Your task to perform on an android device: Is it going to rain this weekend? Image 0: 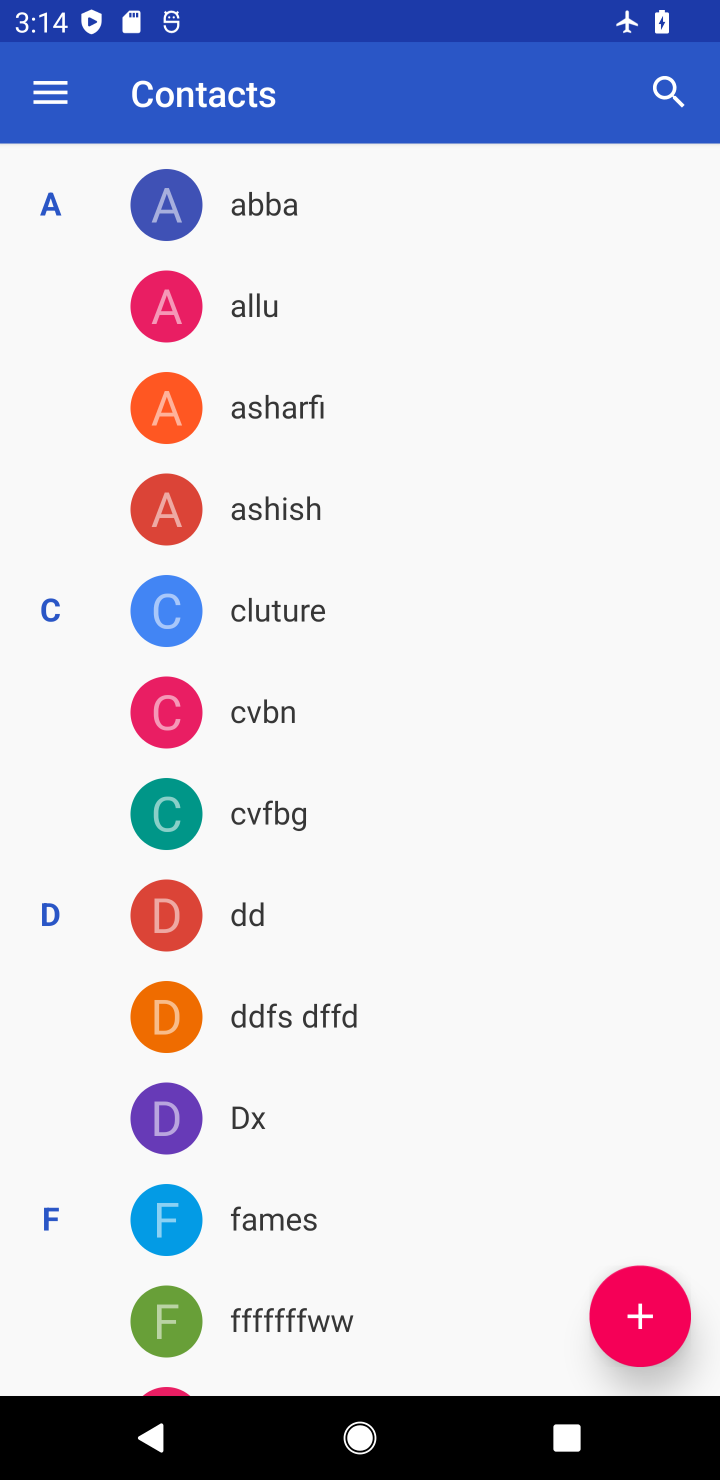
Step 0: press home button
Your task to perform on an android device: Is it going to rain this weekend? Image 1: 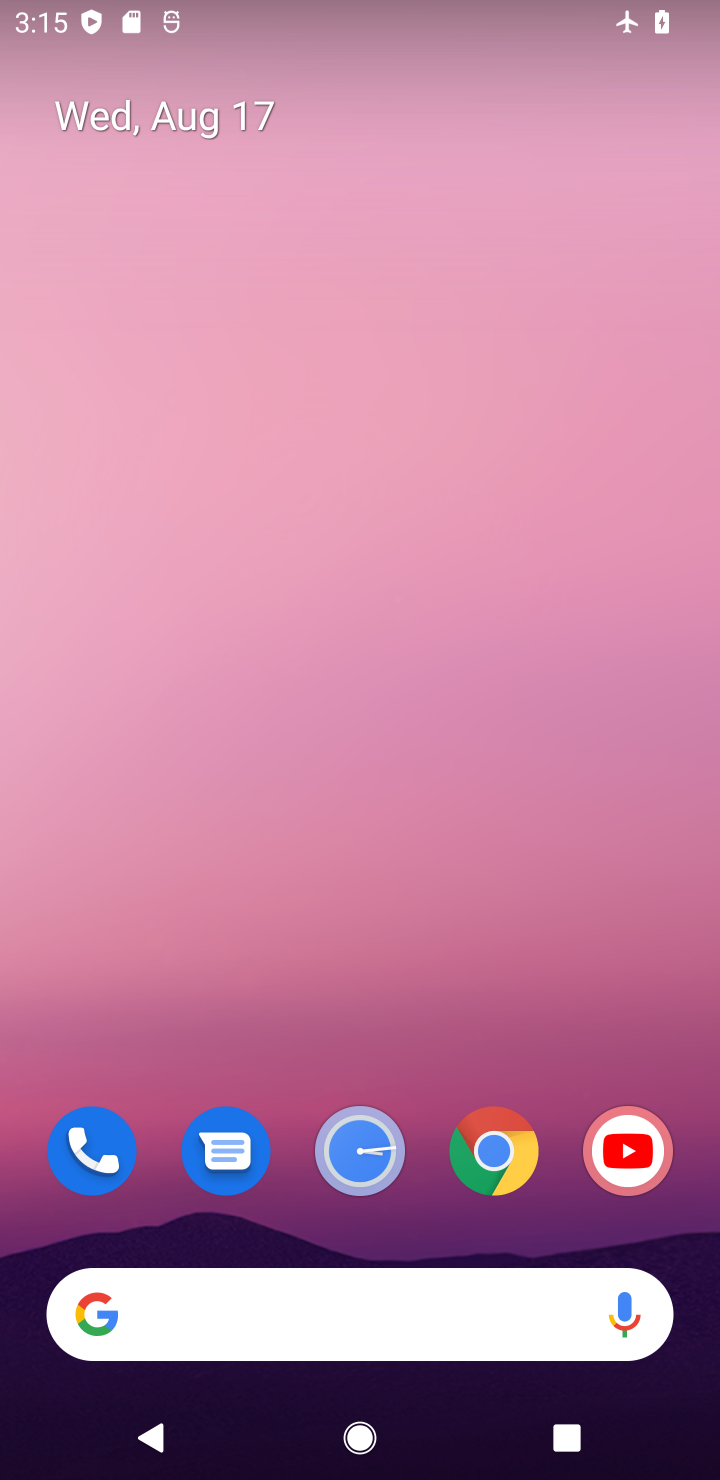
Step 1: click (504, 1202)
Your task to perform on an android device: Is it going to rain this weekend? Image 2: 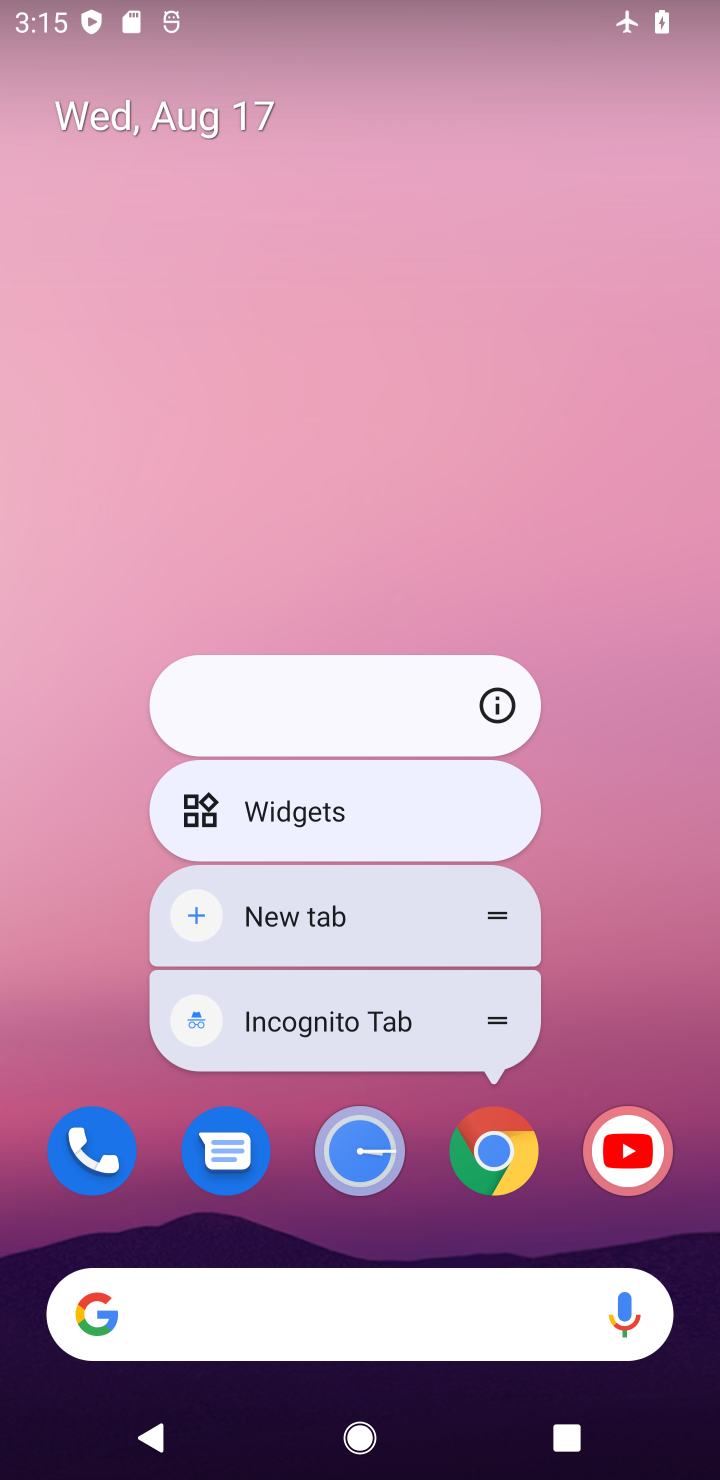
Step 2: click (500, 1162)
Your task to perform on an android device: Is it going to rain this weekend? Image 3: 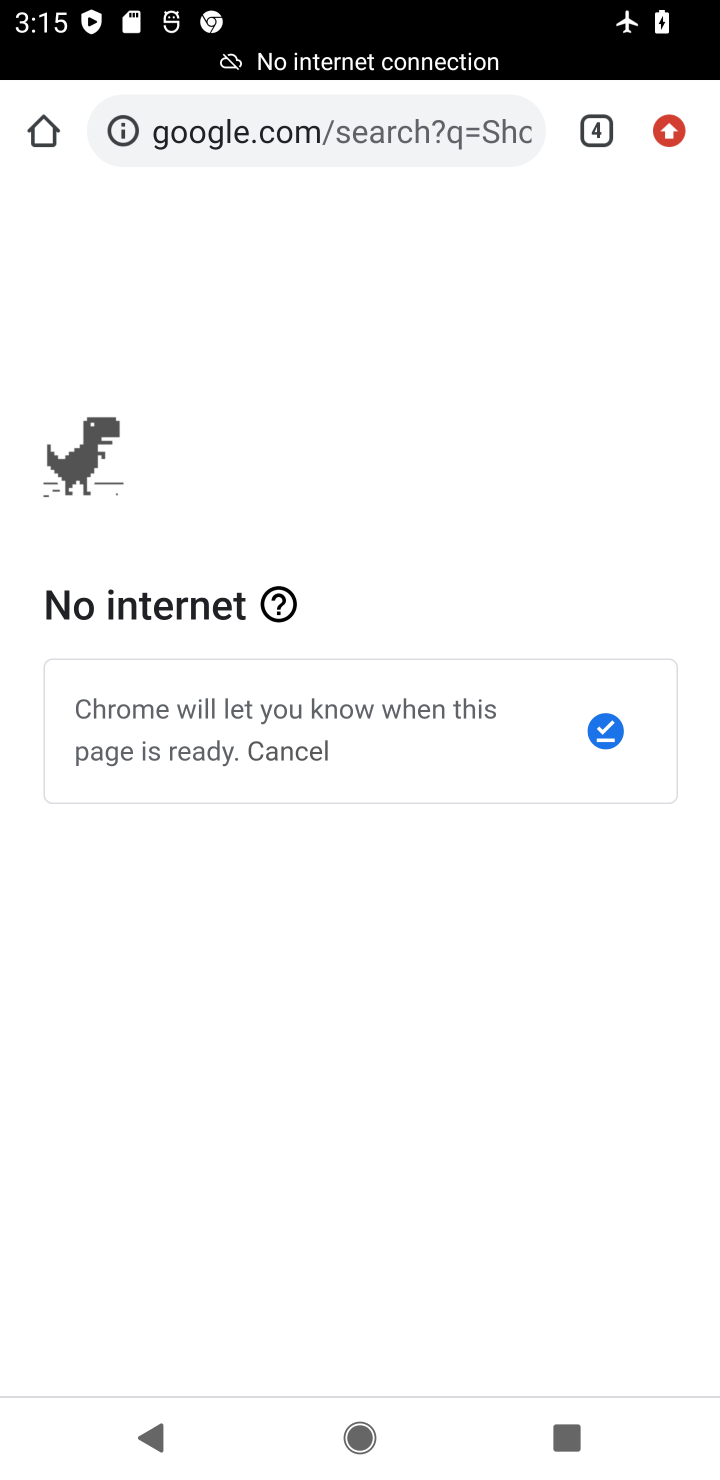
Step 3: click (663, 142)
Your task to perform on an android device: Is it going to rain this weekend? Image 4: 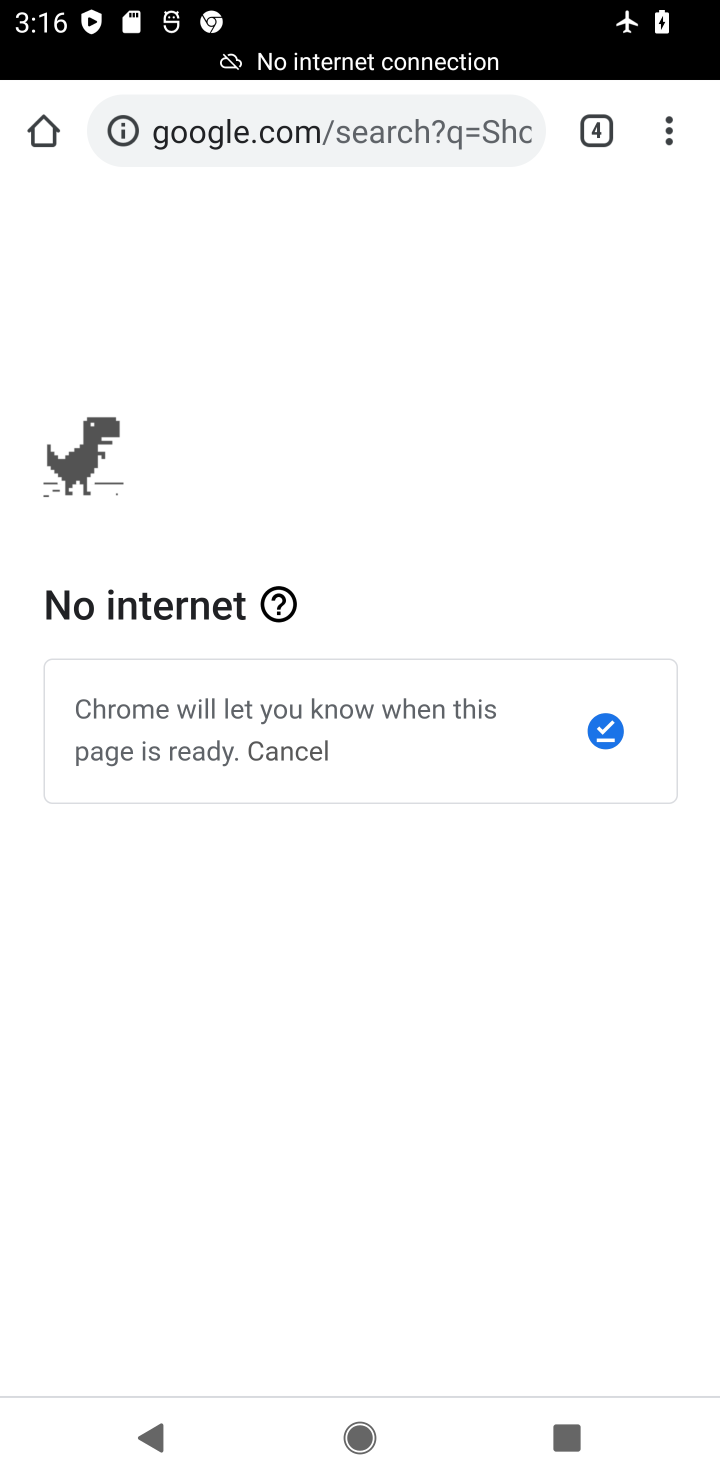
Step 4: click (618, 128)
Your task to perform on an android device: Is it going to rain this weekend? Image 5: 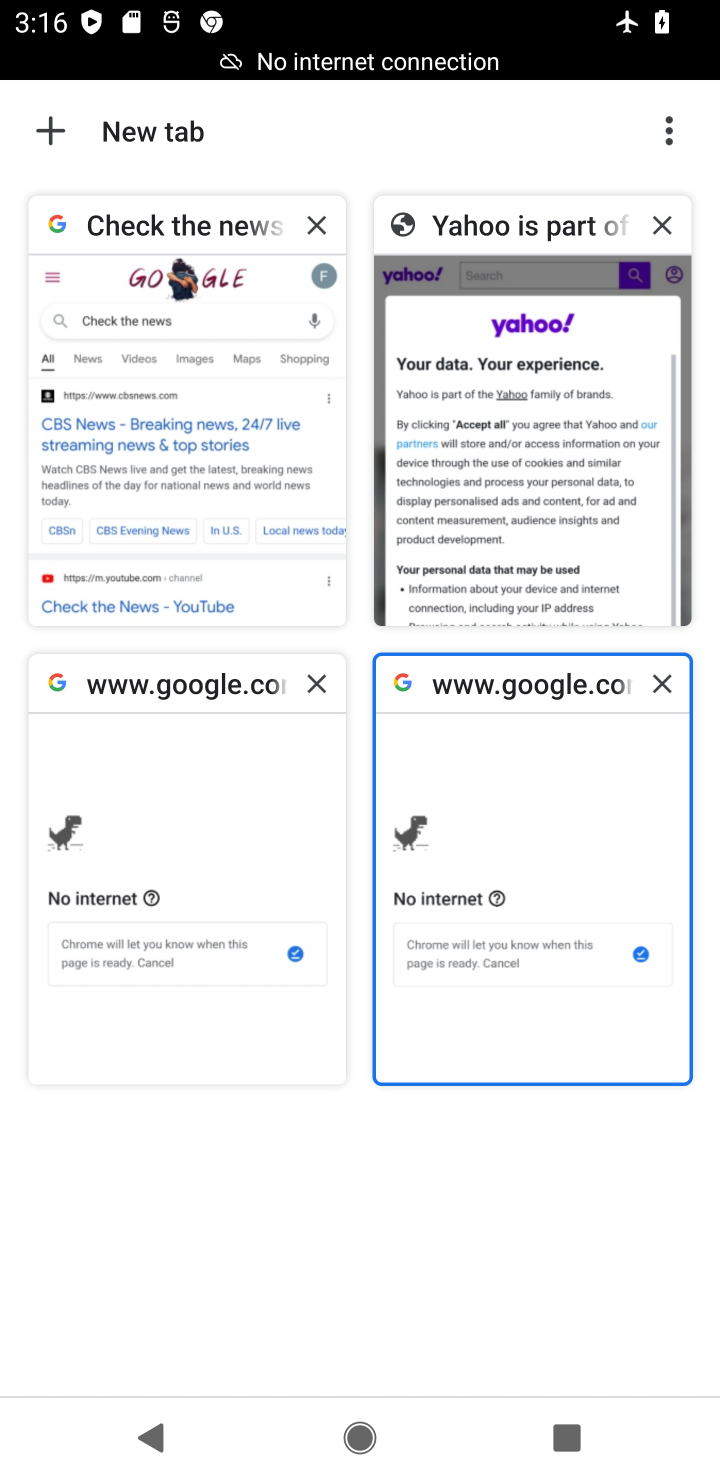
Step 5: click (54, 132)
Your task to perform on an android device: Is it going to rain this weekend? Image 6: 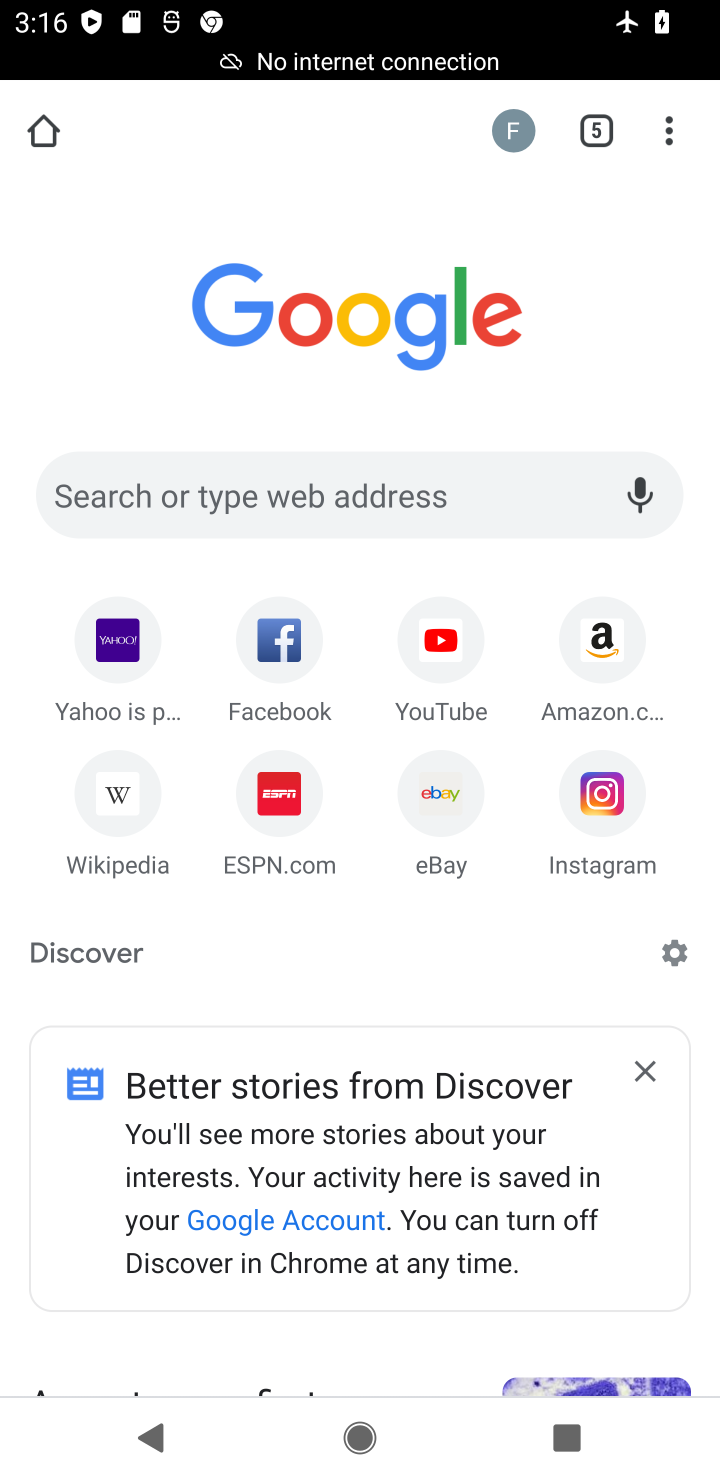
Step 6: click (329, 478)
Your task to perform on an android device: Is it going to rain this weekend? Image 7: 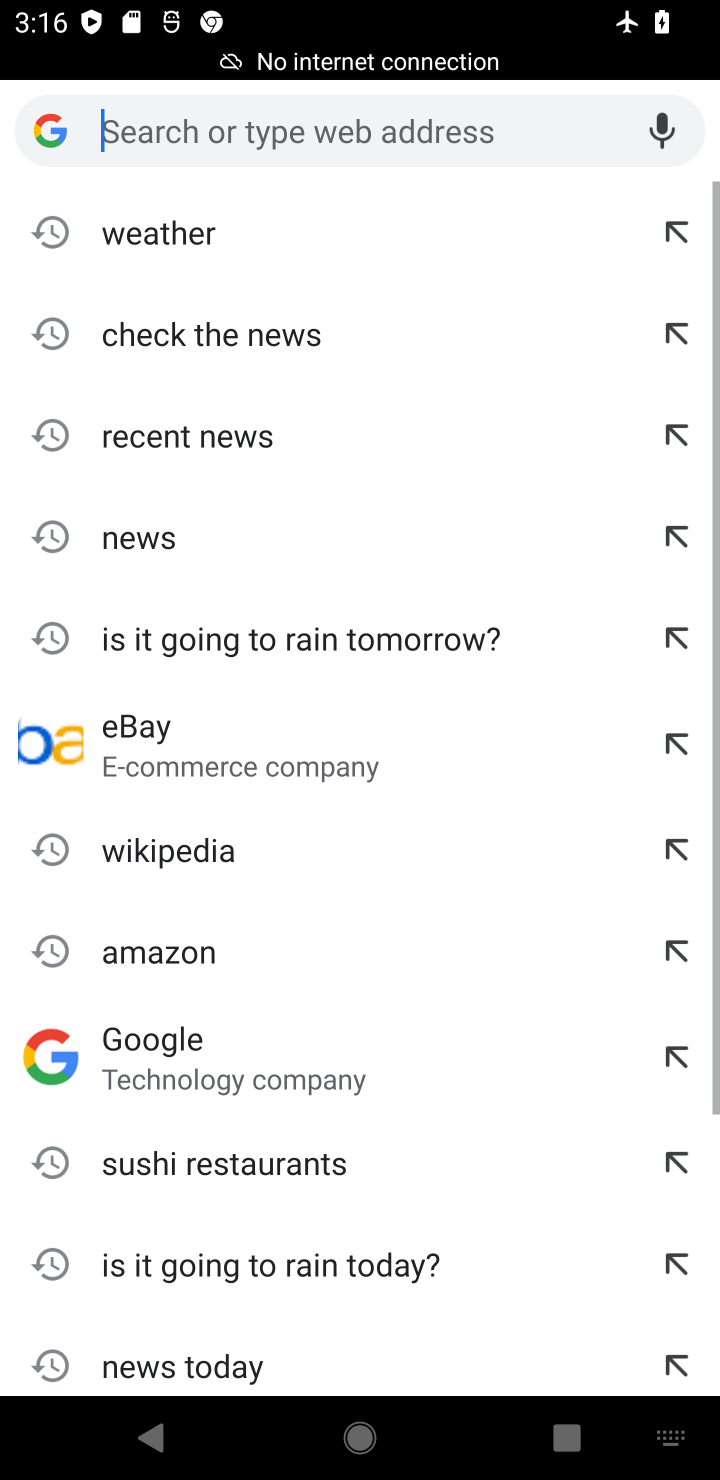
Step 7: type "Is it going to rain this weekend? "
Your task to perform on an android device: Is it going to rain this weekend? Image 8: 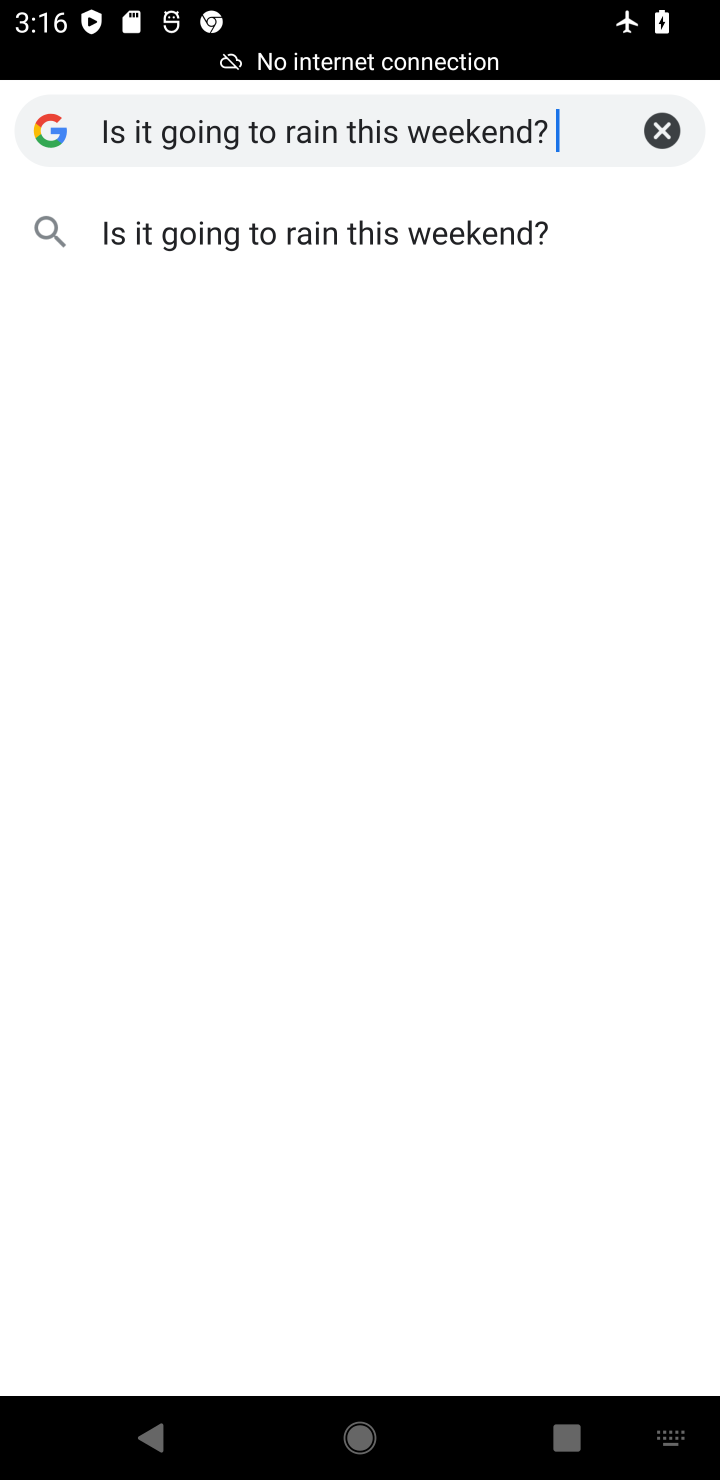
Step 8: click (346, 613)
Your task to perform on an android device: Is it going to rain this weekend? Image 9: 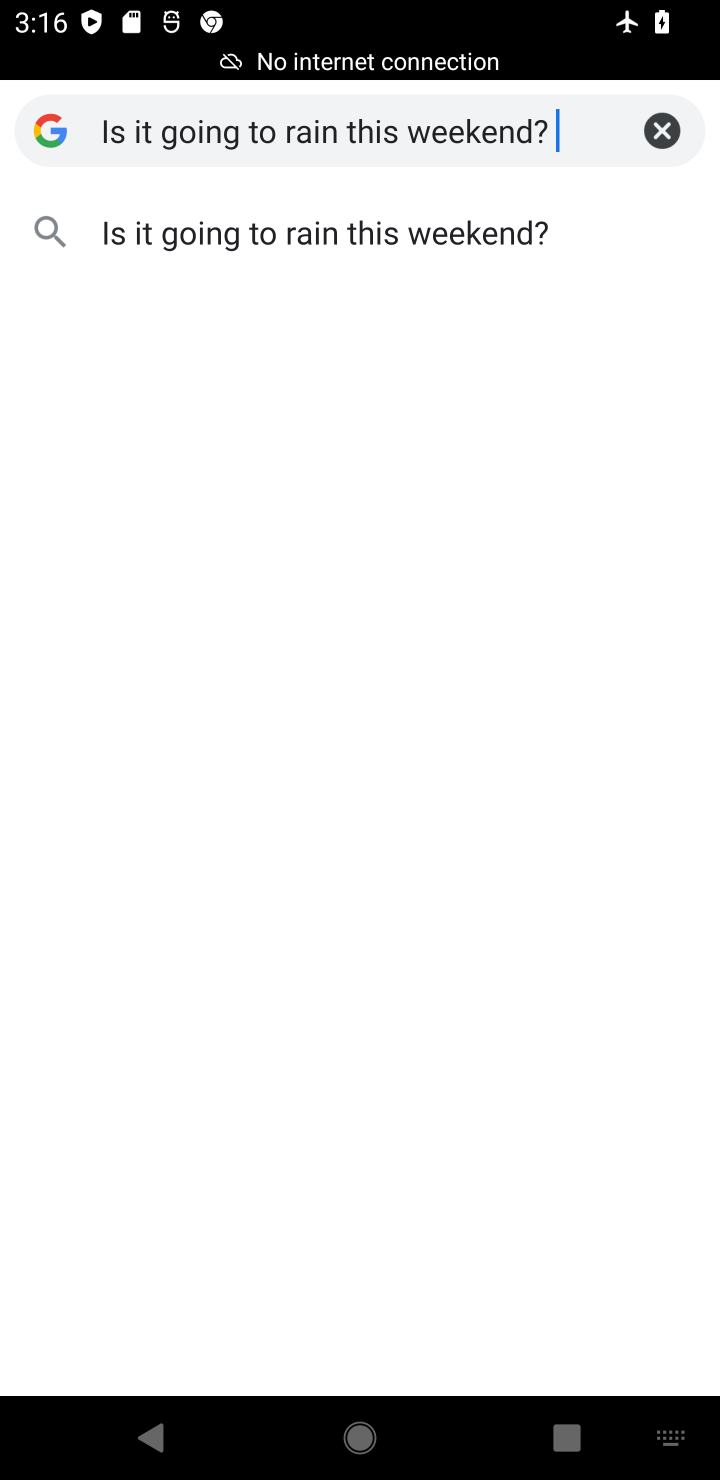
Step 9: click (386, 243)
Your task to perform on an android device: Is it going to rain this weekend? Image 10: 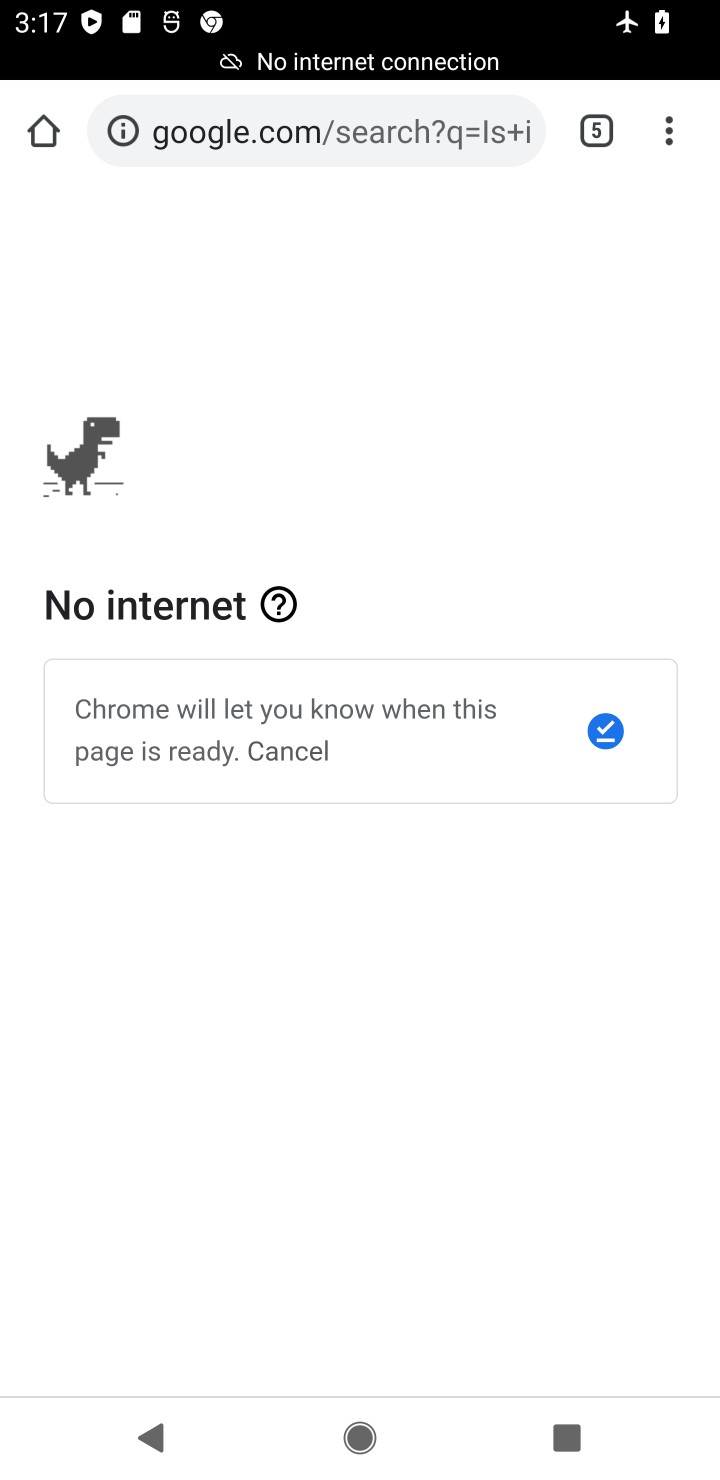
Step 10: task complete